Your task to perform on an android device: change the upload size in google photos Image 0: 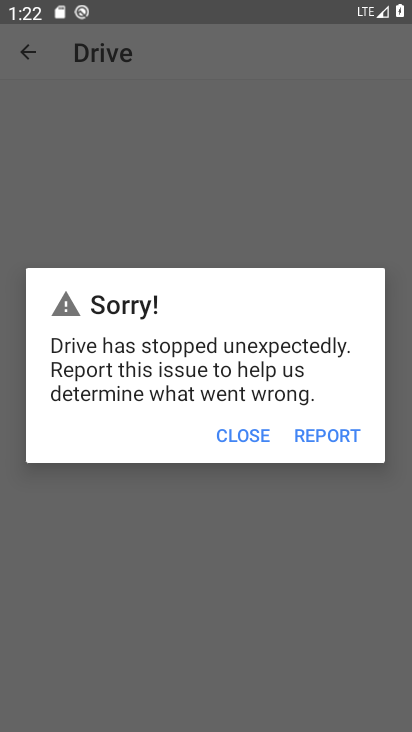
Step 0: press home button
Your task to perform on an android device: change the upload size in google photos Image 1: 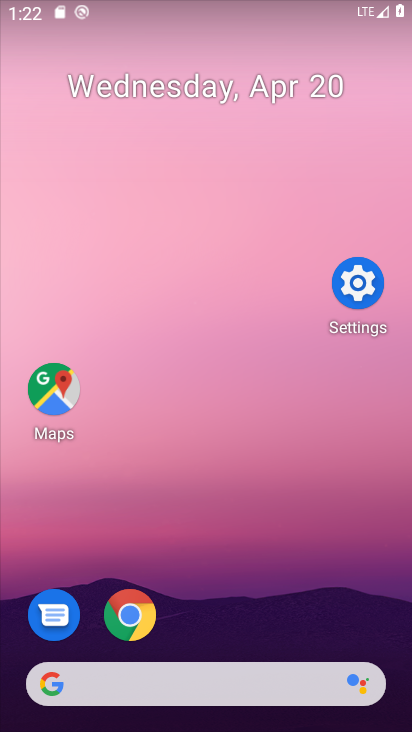
Step 1: drag from (202, 616) to (288, 237)
Your task to perform on an android device: change the upload size in google photos Image 2: 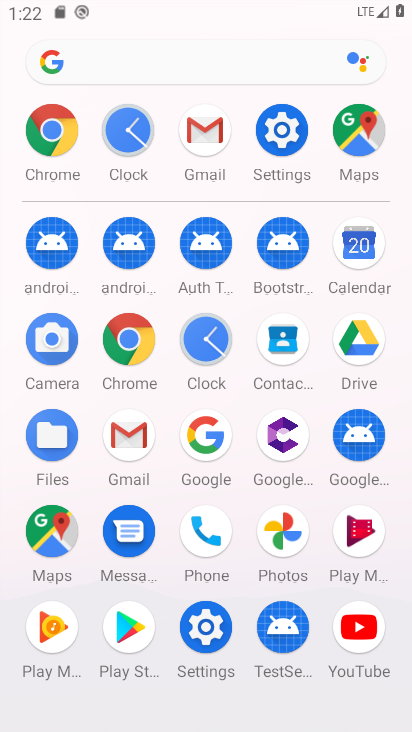
Step 2: click (280, 530)
Your task to perform on an android device: change the upload size in google photos Image 3: 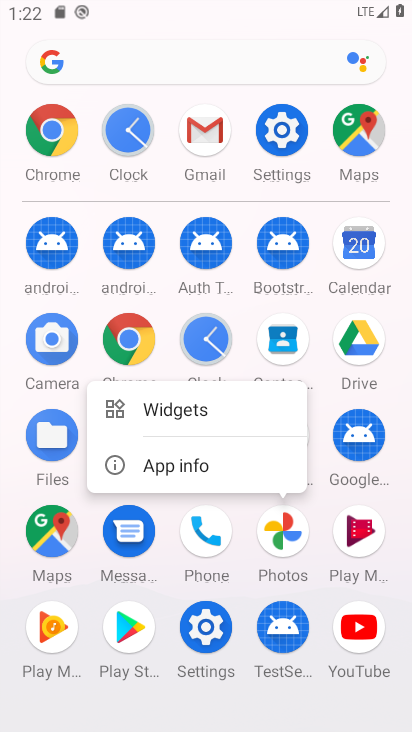
Step 3: click (170, 460)
Your task to perform on an android device: change the upload size in google photos Image 4: 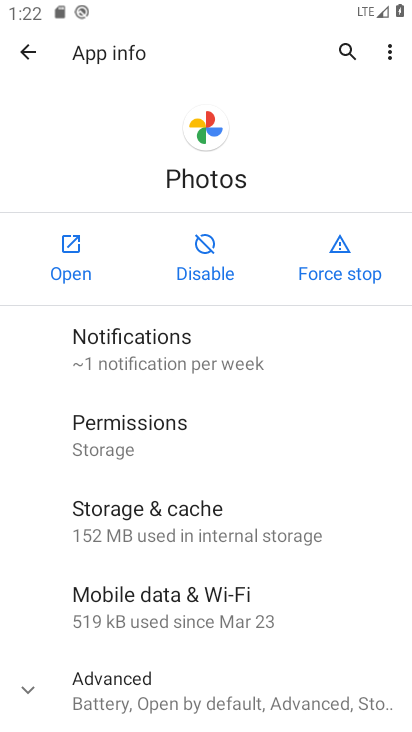
Step 4: click (63, 245)
Your task to perform on an android device: change the upload size in google photos Image 5: 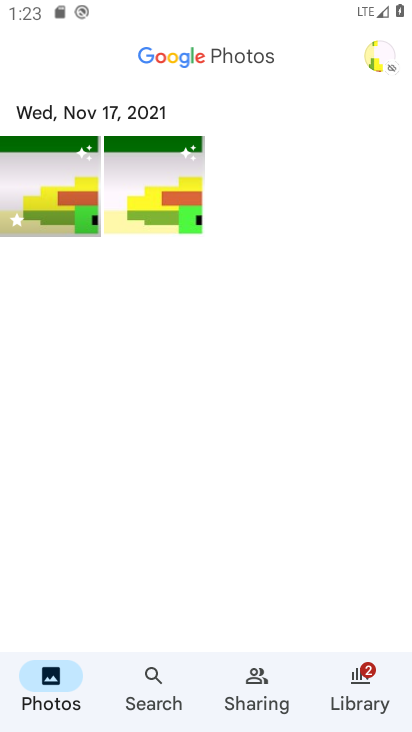
Step 5: click (370, 52)
Your task to perform on an android device: change the upload size in google photos Image 6: 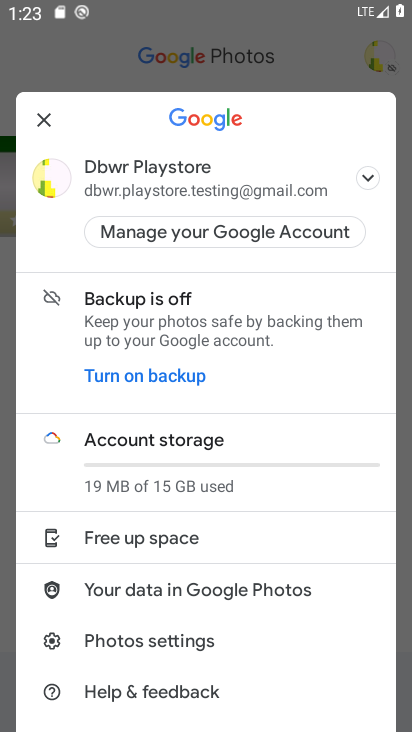
Step 6: click (162, 641)
Your task to perform on an android device: change the upload size in google photos Image 7: 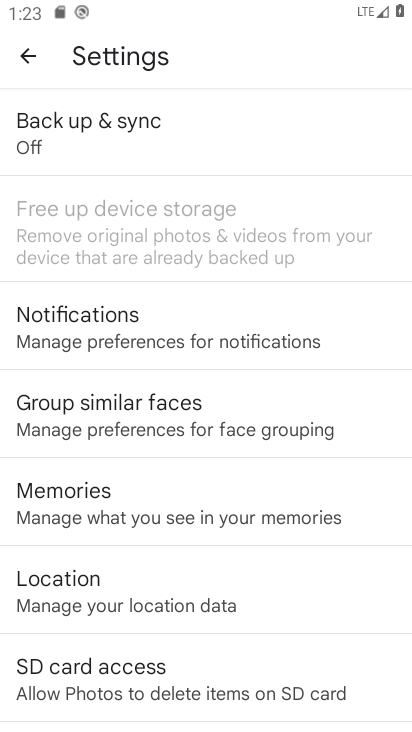
Step 7: click (171, 131)
Your task to perform on an android device: change the upload size in google photos Image 8: 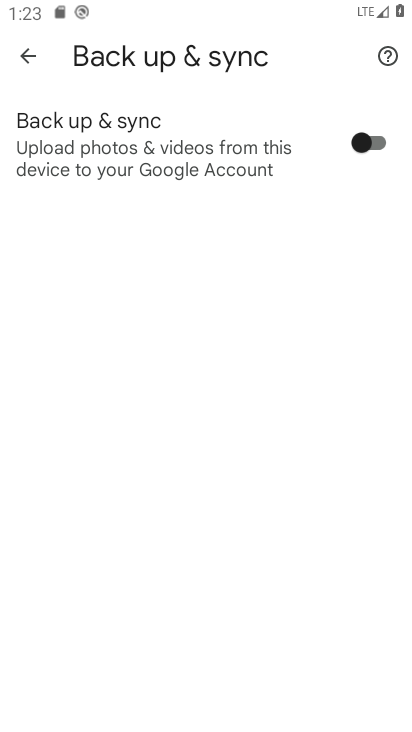
Step 8: click (351, 147)
Your task to perform on an android device: change the upload size in google photos Image 9: 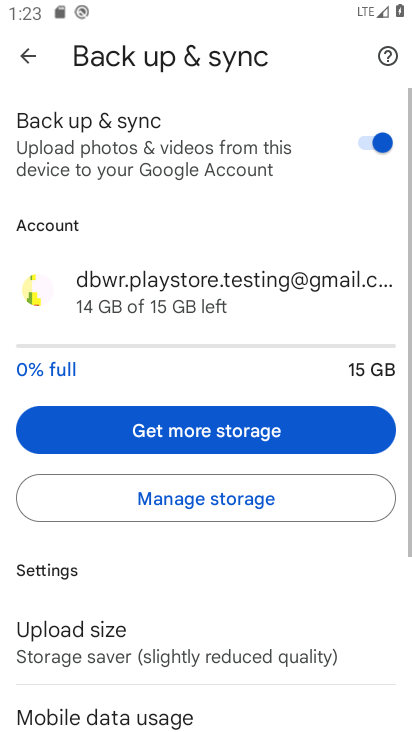
Step 9: click (161, 643)
Your task to perform on an android device: change the upload size in google photos Image 10: 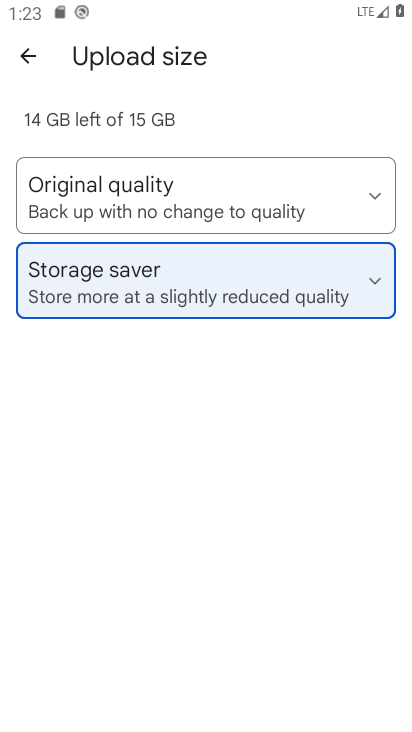
Step 10: click (276, 182)
Your task to perform on an android device: change the upload size in google photos Image 11: 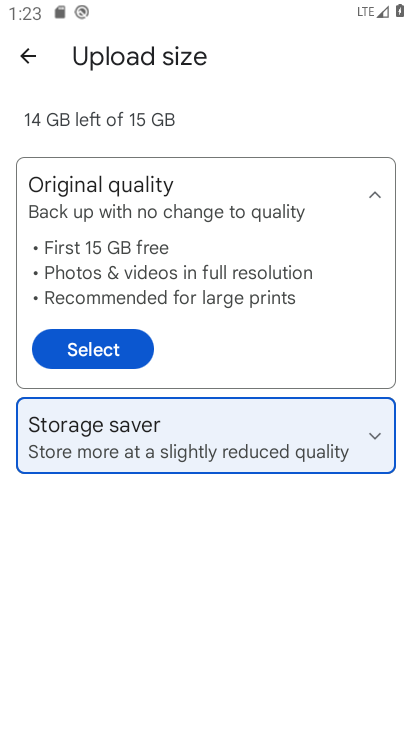
Step 11: task complete